Your task to perform on an android device: Open battery settings Image 0: 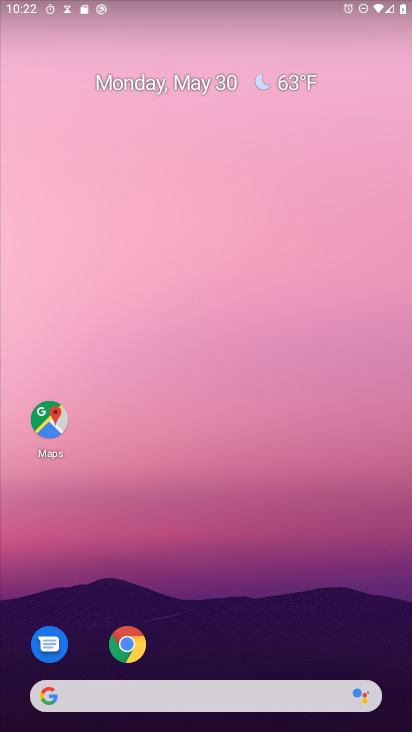
Step 0: drag from (251, 641) to (261, 59)
Your task to perform on an android device: Open battery settings Image 1: 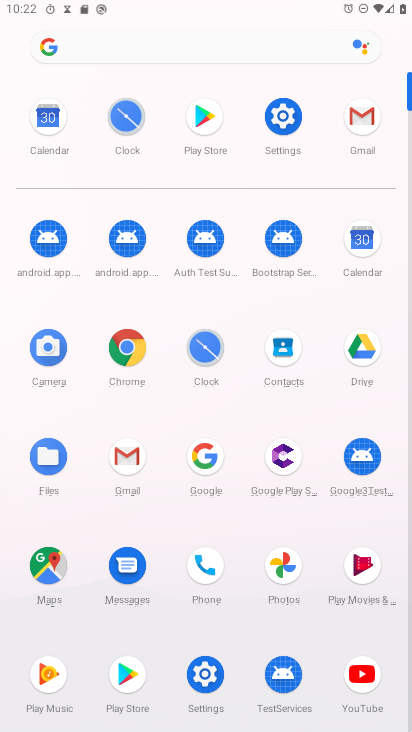
Step 1: click (276, 119)
Your task to perform on an android device: Open battery settings Image 2: 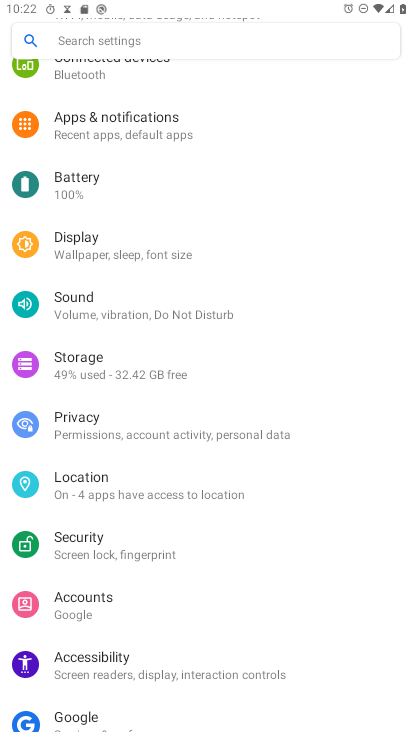
Step 2: click (88, 186)
Your task to perform on an android device: Open battery settings Image 3: 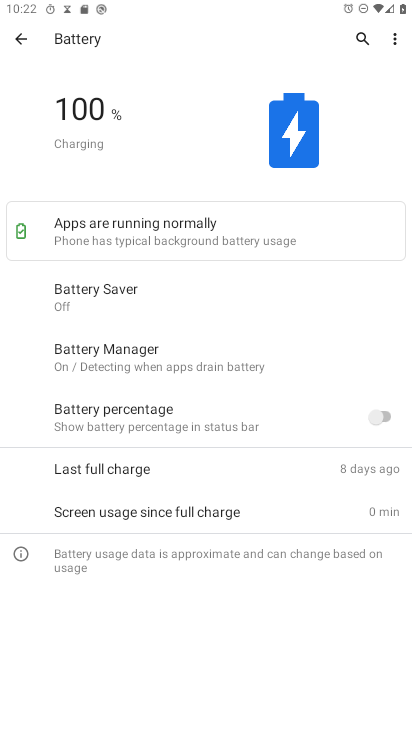
Step 3: task complete